Your task to perform on an android device: Show me my notifications Image 0: 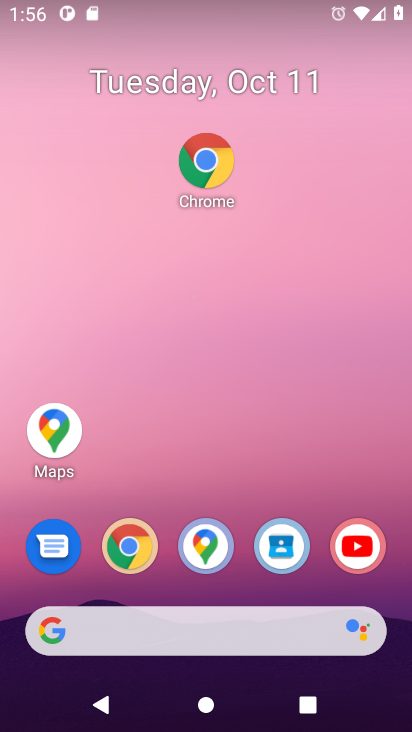
Step 0: drag from (271, 51) to (290, 397)
Your task to perform on an android device: Show me my notifications Image 1: 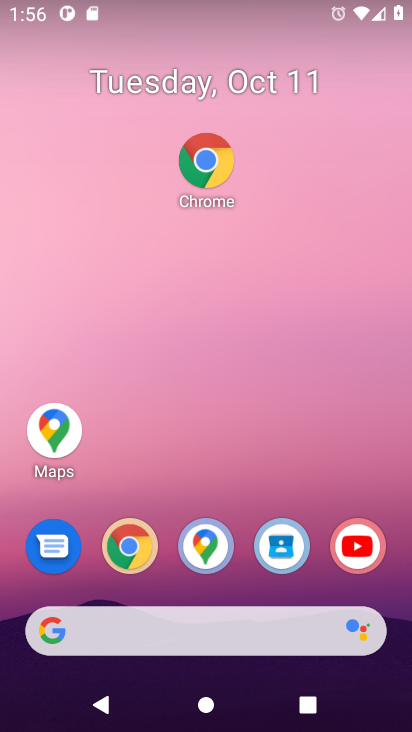
Step 1: drag from (238, 0) to (213, 710)
Your task to perform on an android device: Show me my notifications Image 2: 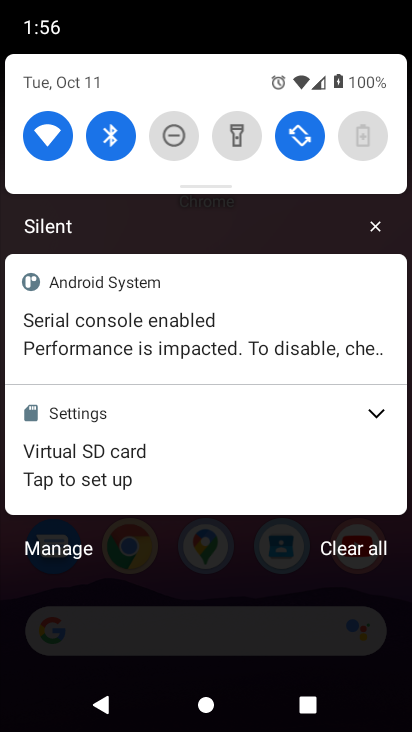
Step 2: drag from (206, 635) to (185, 125)
Your task to perform on an android device: Show me my notifications Image 3: 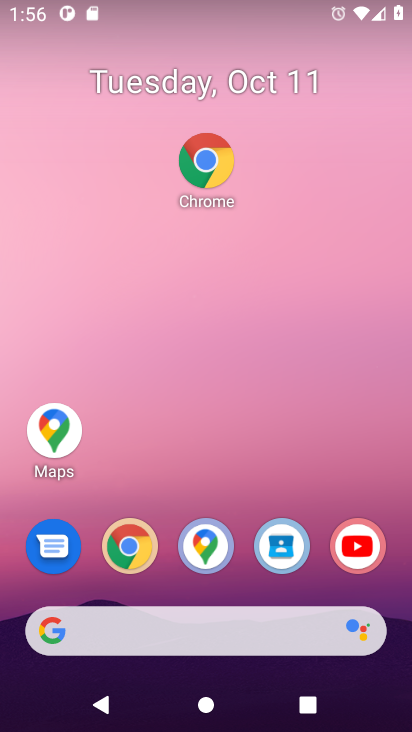
Step 3: drag from (242, 0) to (243, 606)
Your task to perform on an android device: Show me my notifications Image 4: 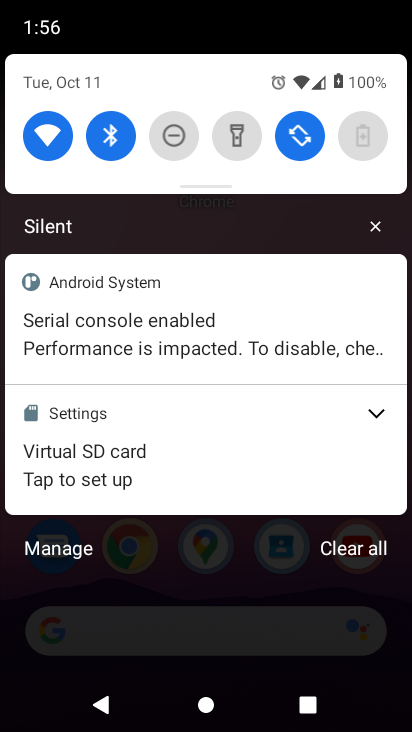
Step 4: drag from (242, 651) to (235, 257)
Your task to perform on an android device: Show me my notifications Image 5: 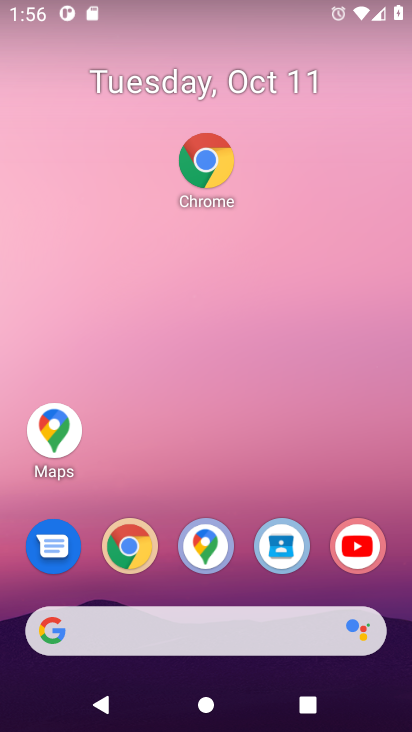
Step 5: click (252, 344)
Your task to perform on an android device: Show me my notifications Image 6: 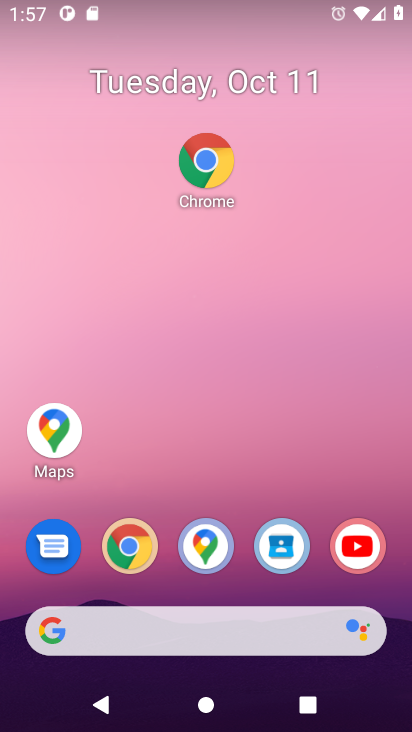
Step 6: task complete